Your task to perform on an android device: Turn on the flashlight Image 0: 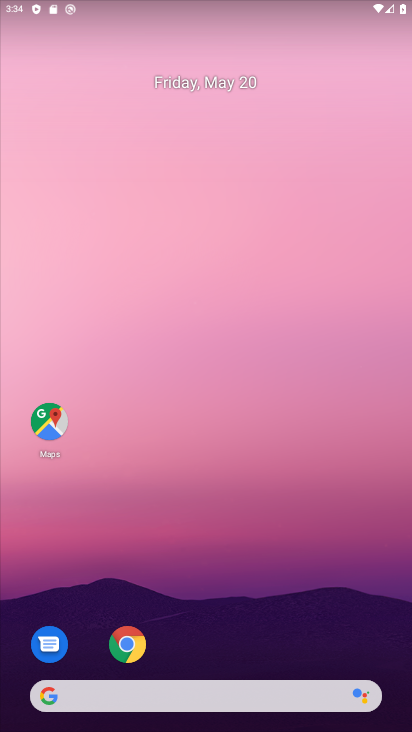
Step 0: drag from (166, 593) to (177, 332)
Your task to perform on an android device: Turn on the flashlight Image 1: 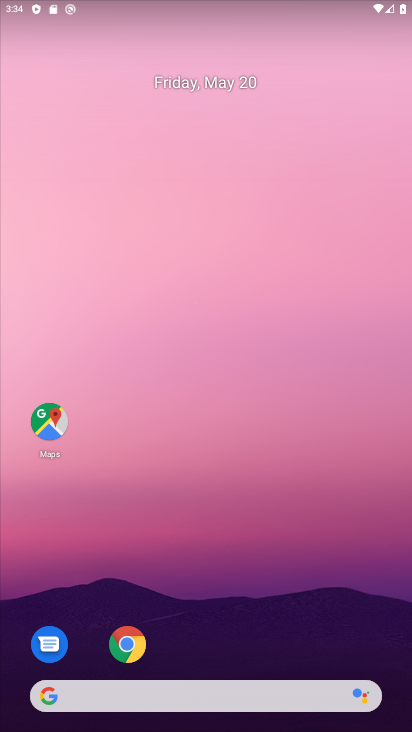
Step 1: drag from (179, 677) to (225, 16)
Your task to perform on an android device: Turn on the flashlight Image 2: 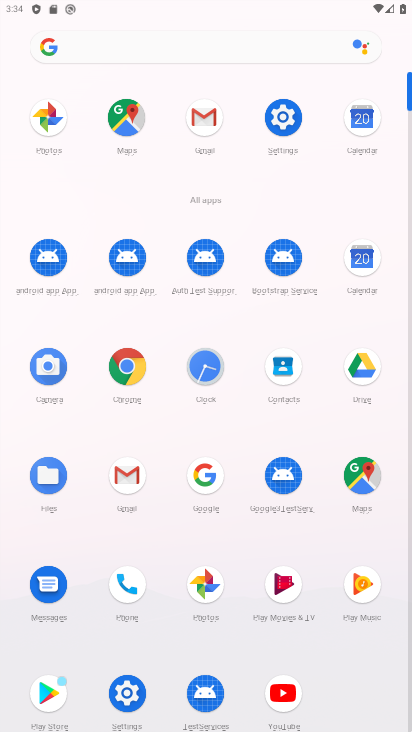
Step 2: click (277, 120)
Your task to perform on an android device: Turn on the flashlight Image 3: 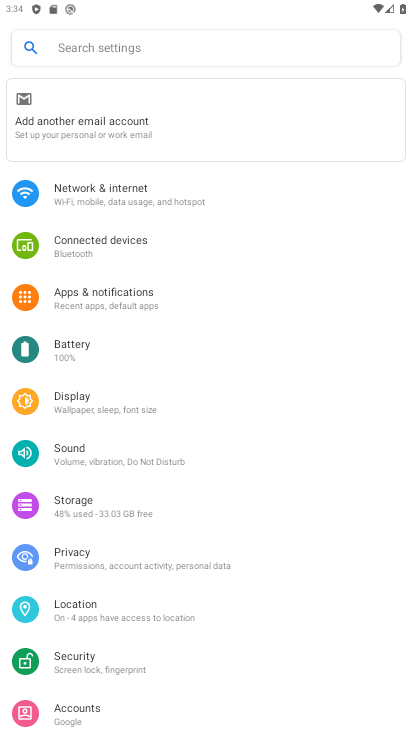
Step 3: click (114, 52)
Your task to perform on an android device: Turn on the flashlight Image 4: 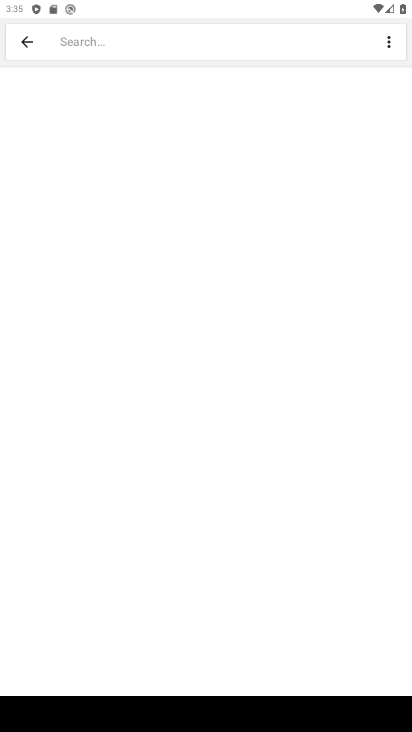
Step 4: type "flashlight"
Your task to perform on an android device: Turn on the flashlight Image 5: 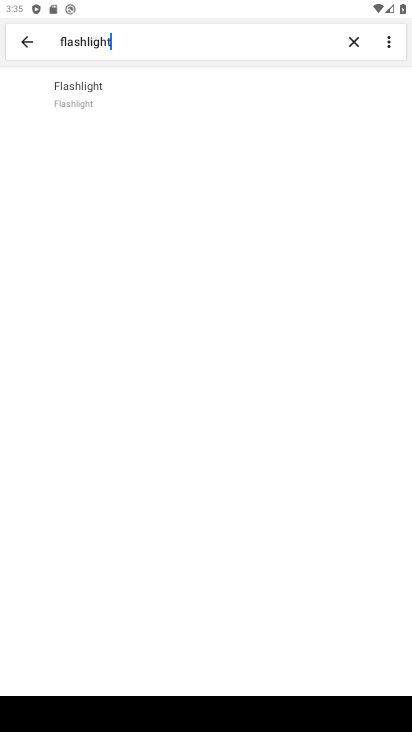
Step 5: click (107, 90)
Your task to perform on an android device: Turn on the flashlight Image 6: 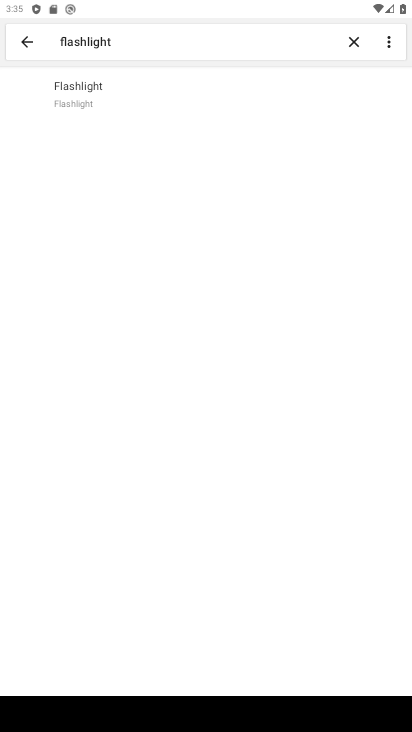
Step 6: task complete